Your task to perform on an android device: Go to Amazon Image 0: 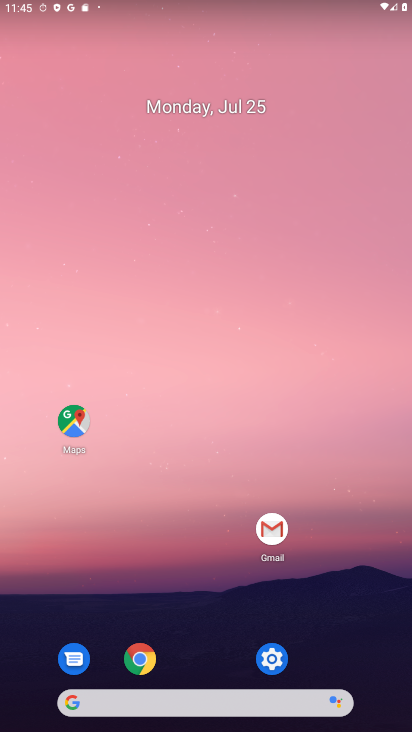
Step 0: click (146, 662)
Your task to perform on an android device: Go to Amazon Image 1: 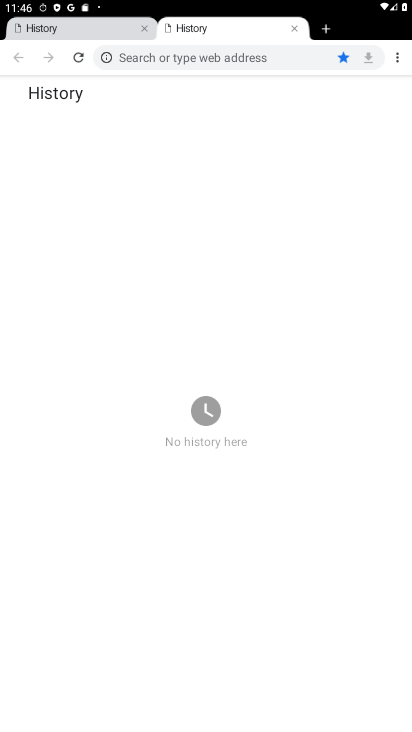
Step 1: click (327, 28)
Your task to perform on an android device: Go to Amazon Image 2: 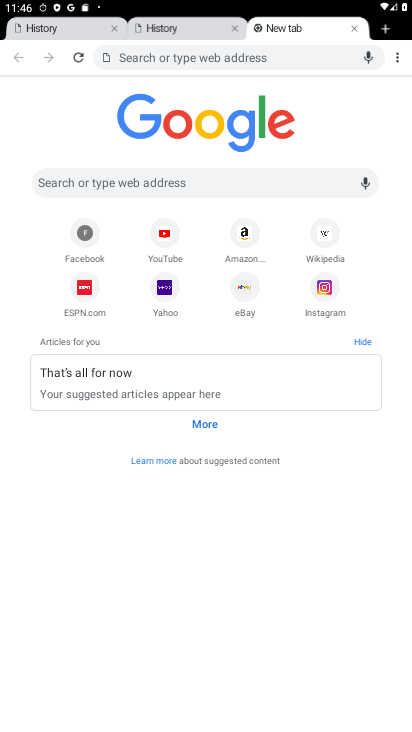
Step 2: click (238, 242)
Your task to perform on an android device: Go to Amazon Image 3: 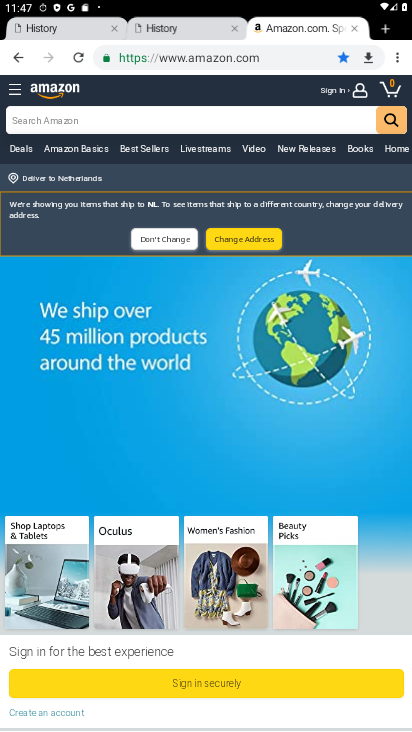
Step 3: task complete